Your task to perform on an android device: turn off wifi Image 0: 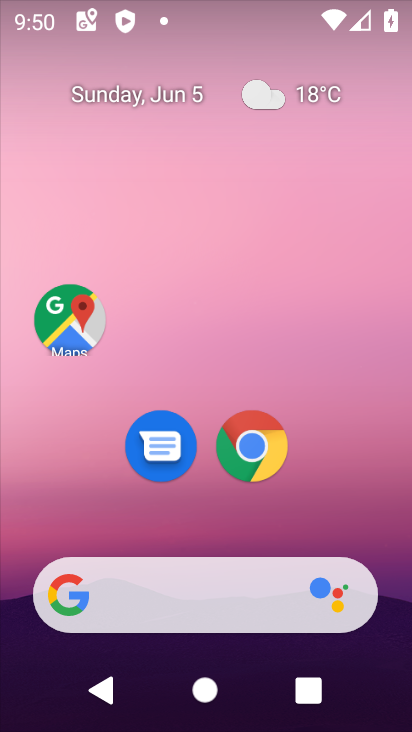
Step 0: drag from (213, 516) to (215, 189)
Your task to perform on an android device: turn off wifi Image 1: 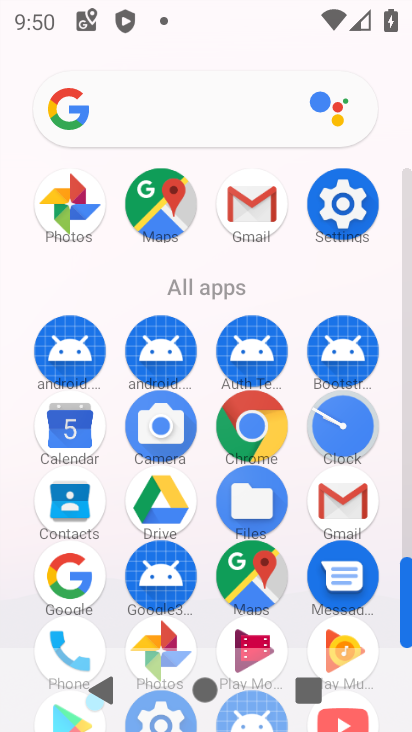
Step 1: click (332, 212)
Your task to perform on an android device: turn off wifi Image 2: 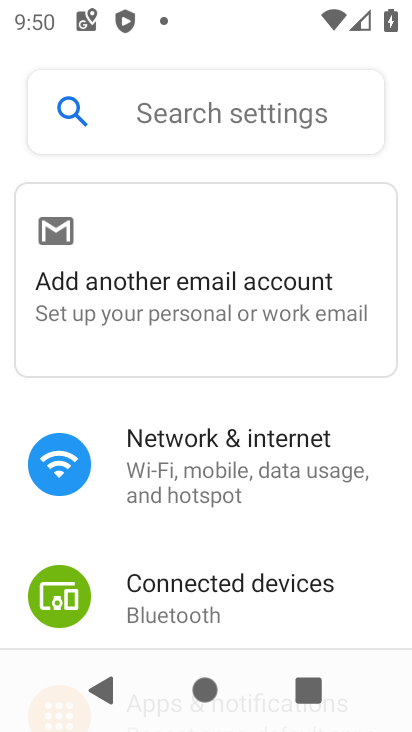
Step 2: click (193, 269)
Your task to perform on an android device: turn off wifi Image 3: 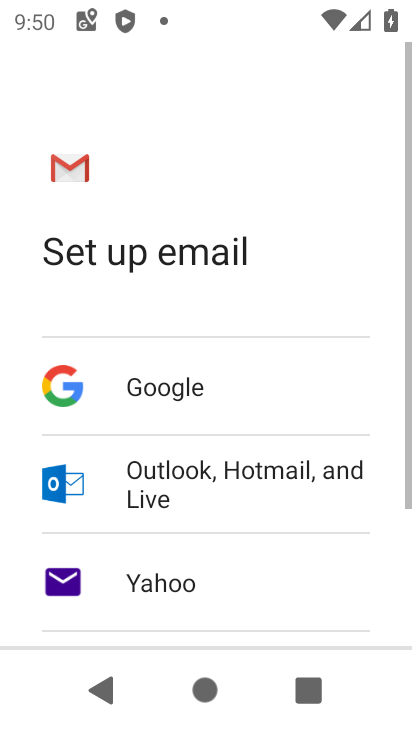
Step 3: press back button
Your task to perform on an android device: turn off wifi Image 4: 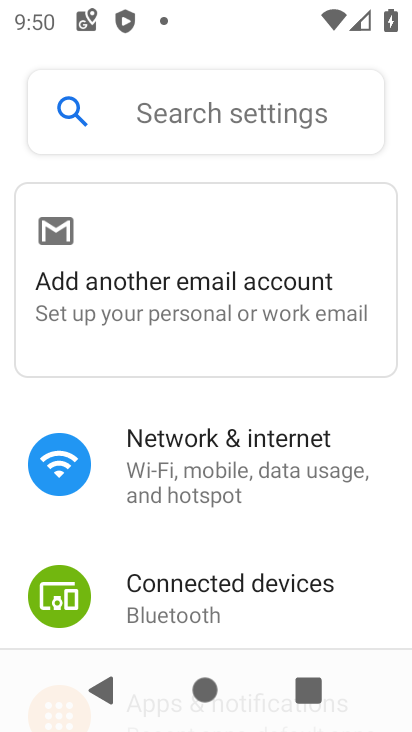
Step 4: click (168, 463)
Your task to perform on an android device: turn off wifi Image 5: 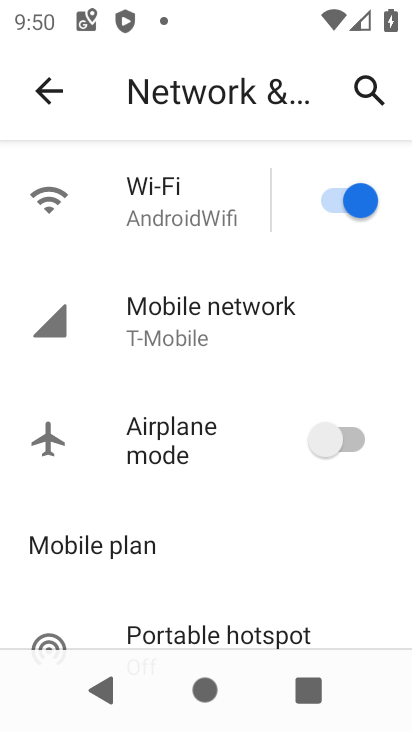
Step 5: click (342, 208)
Your task to perform on an android device: turn off wifi Image 6: 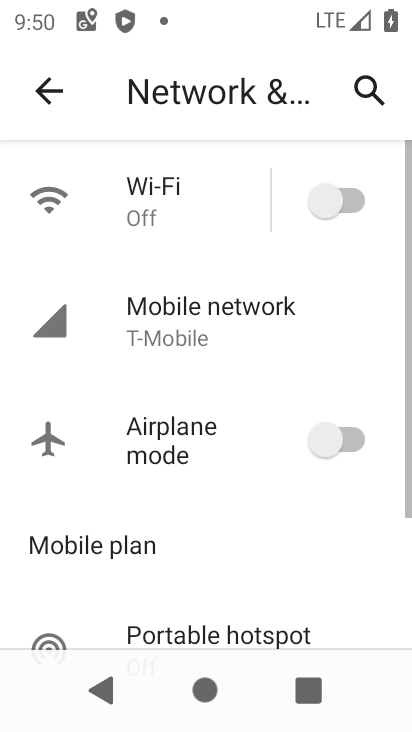
Step 6: task complete